Your task to perform on an android device: Go to accessibility settings Image 0: 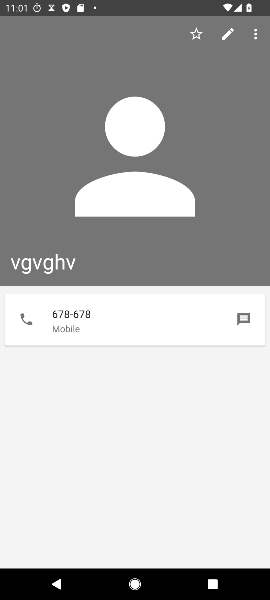
Step 0: press home button
Your task to perform on an android device: Go to accessibility settings Image 1: 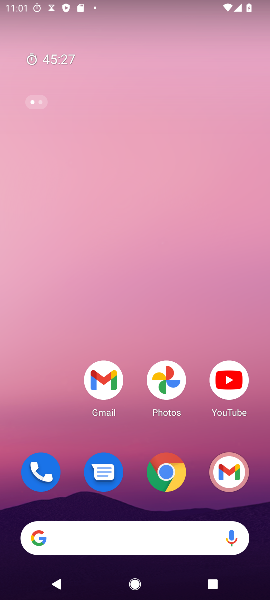
Step 1: drag from (204, 443) to (199, 95)
Your task to perform on an android device: Go to accessibility settings Image 2: 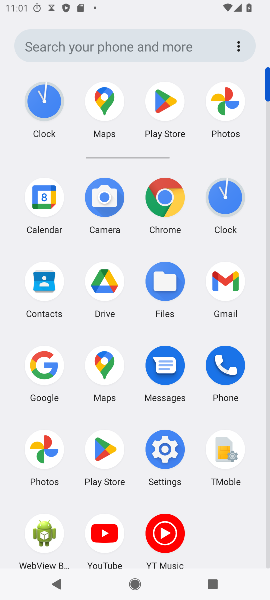
Step 2: click (164, 453)
Your task to perform on an android device: Go to accessibility settings Image 3: 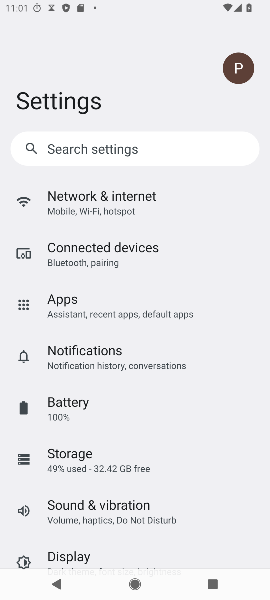
Step 3: drag from (159, 529) to (132, 99)
Your task to perform on an android device: Go to accessibility settings Image 4: 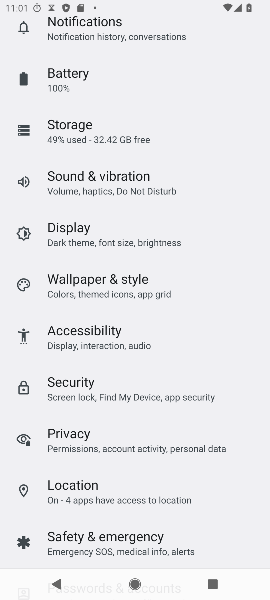
Step 4: click (143, 336)
Your task to perform on an android device: Go to accessibility settings Image 5: 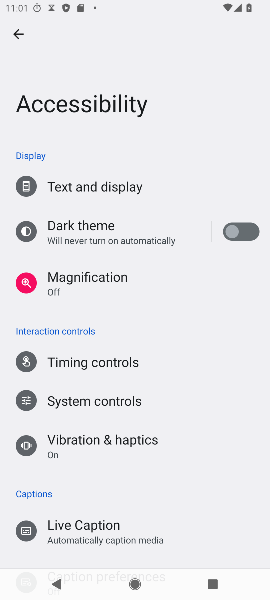
Step 5: task complete